Your task to perform on an android device: Go to battery settings Image 0: 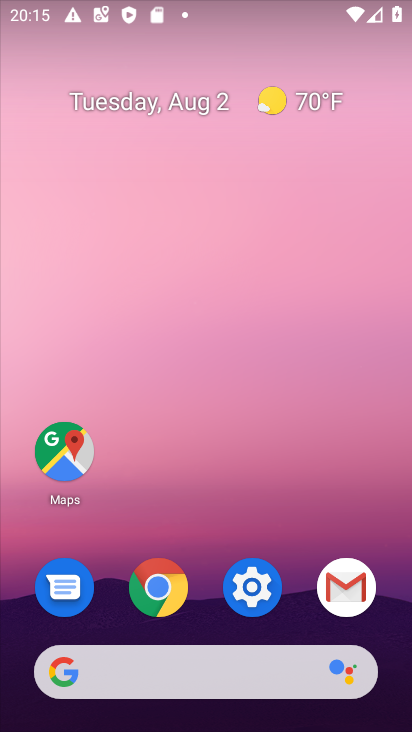
Step 0: press home button
Your task to perform on an android device: Go to battery settings Image 1: 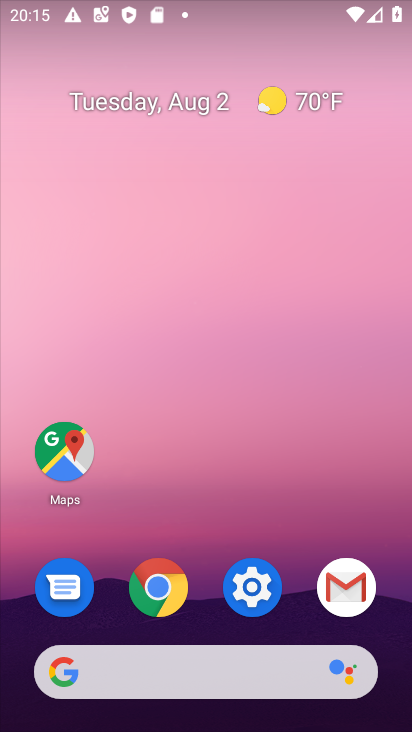
Step 1: click (159, 554)
Your task to perform on an android device: Go to battery settings Image 2: 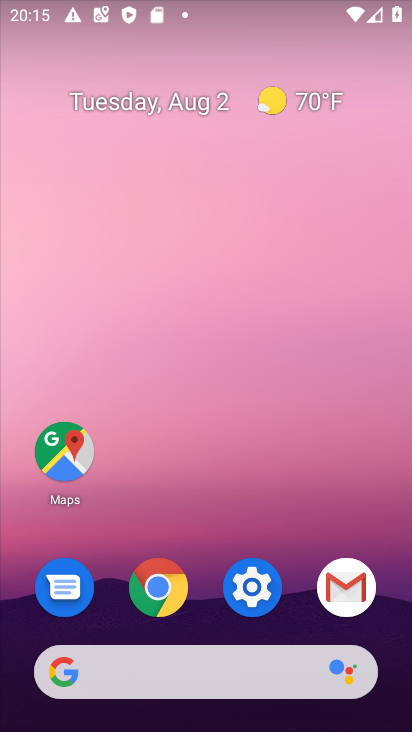
Step 2: click (113, 590)
Your task to perform on an android device: Go to battery settings Image 3: 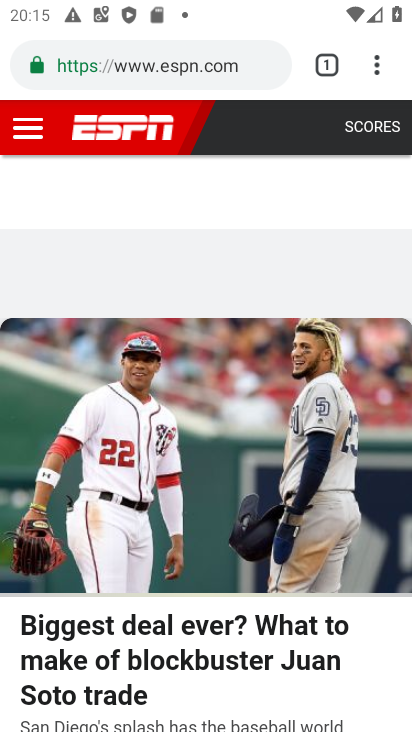
Step 3: press home button
Your task to perform on an android device: Go to battery settings Image 4: 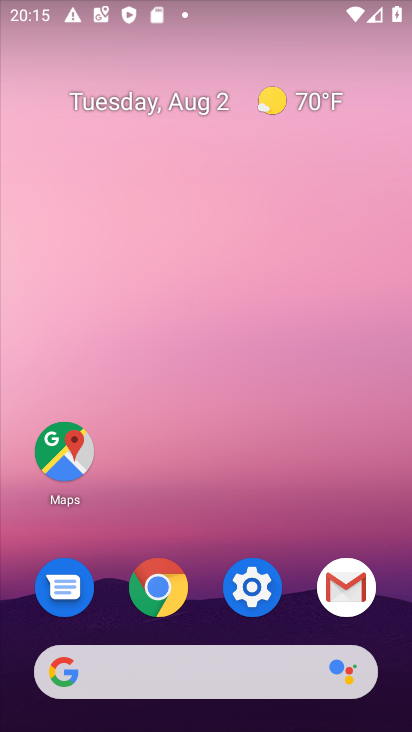
Step 4: click (268, 581)
Your task to perform on an android device: Go to battery settings Image 5: 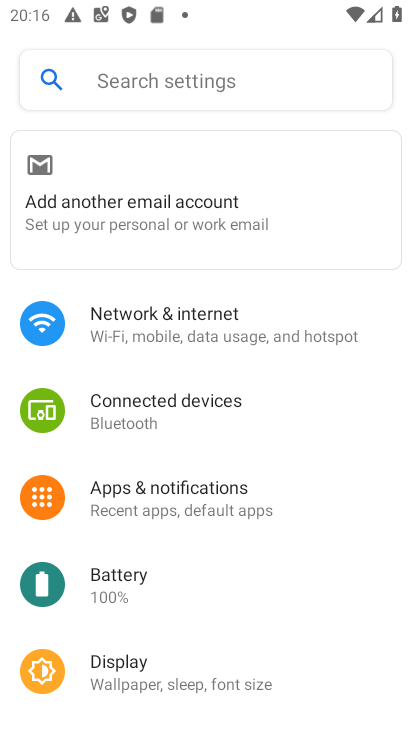
Step 5: click (157, 571)
Your task to perform on an android device: Go to battery settings Image 6: 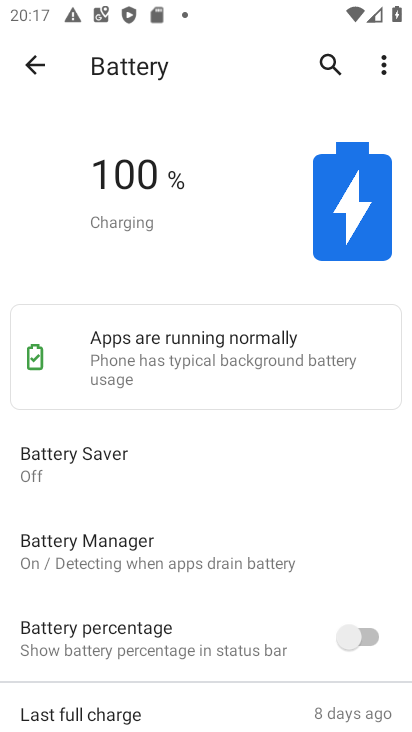
Step 6: task complete